Your task to perform on an android device: turn on data saver in the chrome app Image 0: 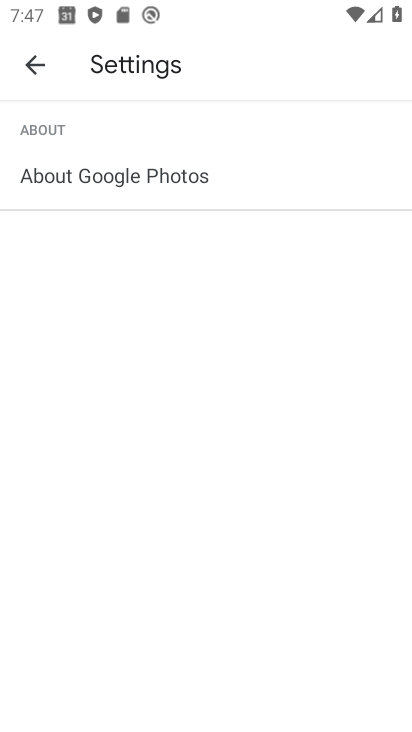
Step 0: press home button
Your task to perform on an android device: turn on data saver in the chrome app Image 1: 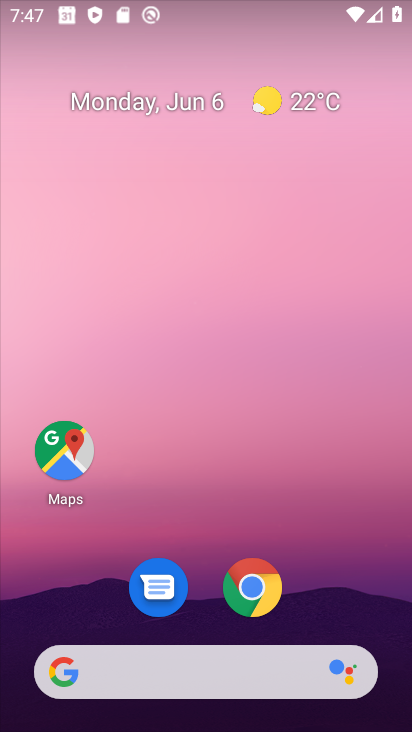
Step 1: click (238, 591)
Your task to perform on an android device: turn on data saver in the chrome app Image 2: 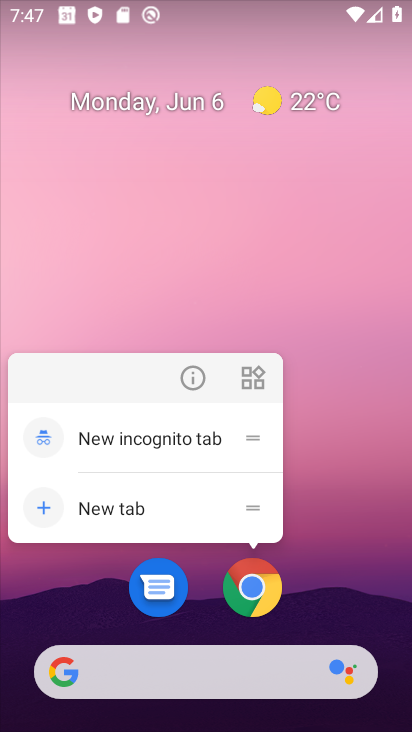
Step 2: click (250, 594)
Your task to perform on an android device: turn on data saver in the chrome app Image 3: 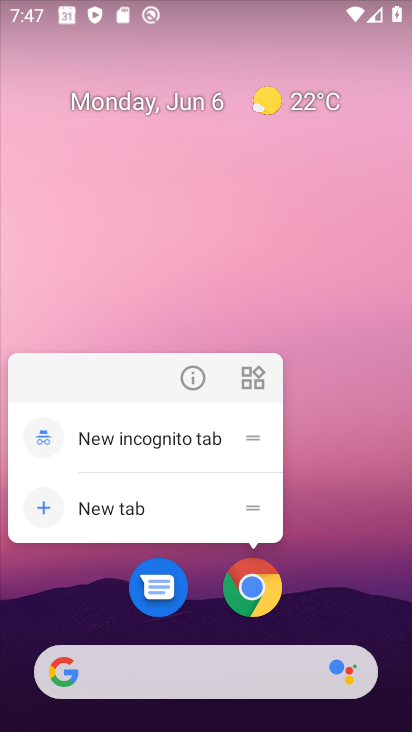
Step 3: click (374, 493)
Your task to perform on an android device: turn on data saver in the chrome app Image 4: 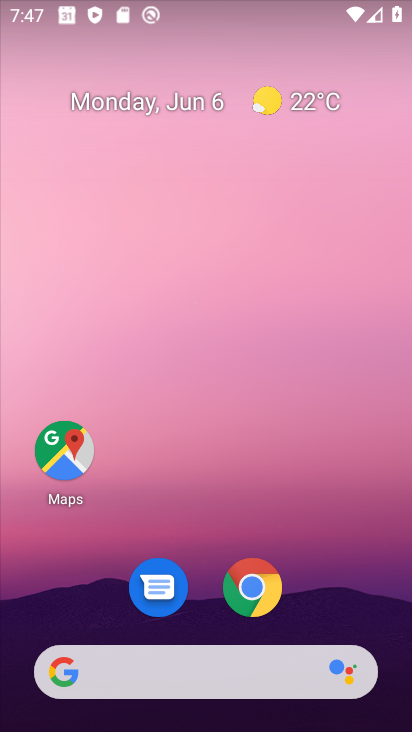
Step 4: drag from (307, 645) to (311, 360)
Your task to perform on an android device: turn on data saver in the chrome app Image 5: 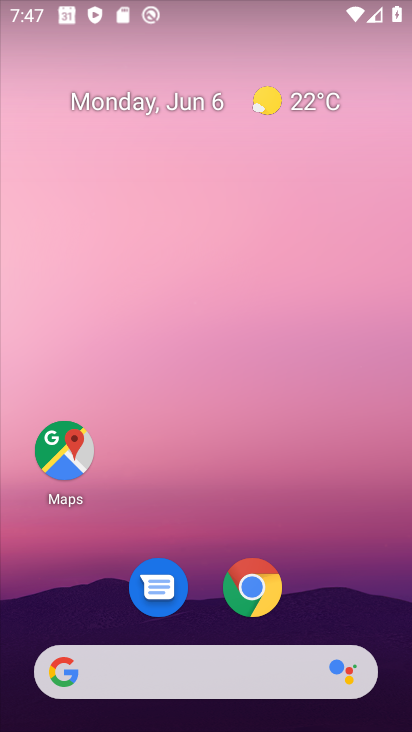
Step 5: click (264, 603)
Your task to perform on an android device: turn on data saver in the chrome app Image 6: 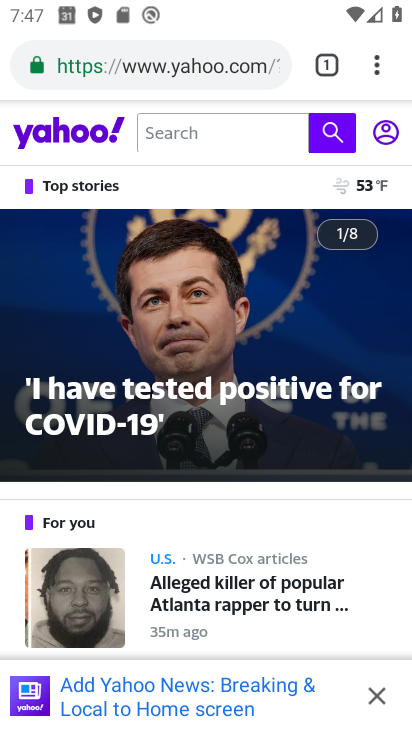
Step 6: click (376, 58)
Your task to perform on an android device: turn on data saver in the chrome app Image 7: 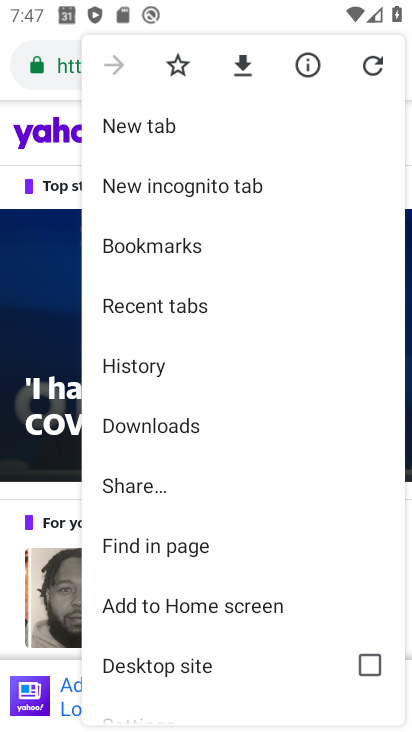
Step 7: drag from (158, 656) to (210, 260)
Your task to perform on an android device: turn on data saver in the chrome app Image 8: 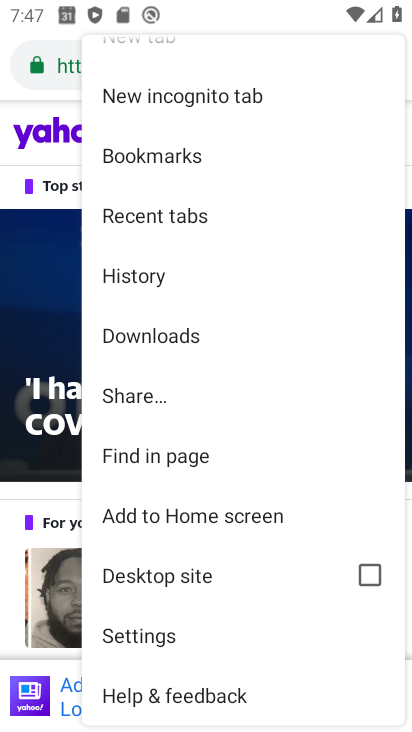
Step 8: click (134, 641)
Your task to perform on an android device: turn on data saver in the chrome app Image 9: 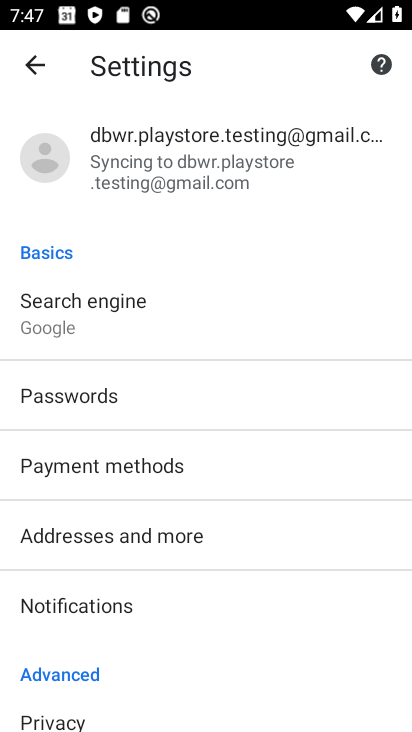
Step 9: drag from (146, 670) to (187, 325)
Your task to perform on an android device: turn on data saver in the chrome app Image 10: 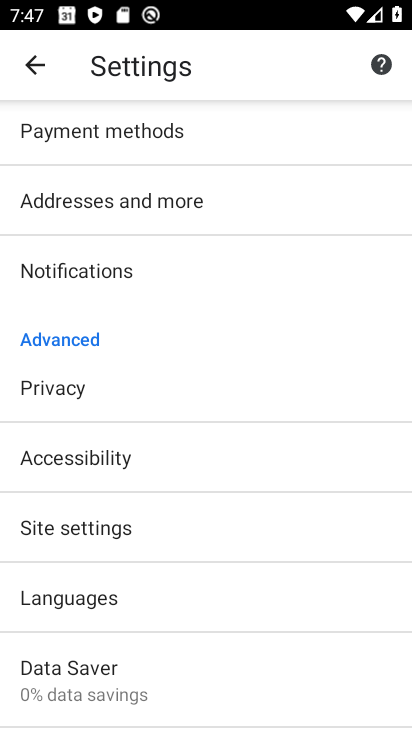
Step 10: click (77, 672)
Your task to perform on an android device: turn on data saver in the chrome app Image 11: 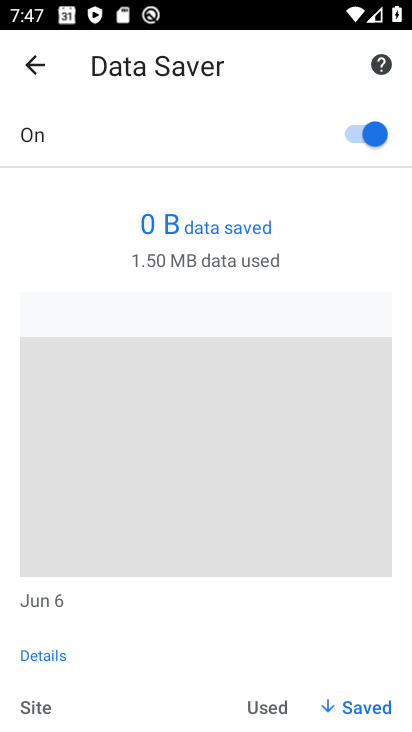
Step 11: task complete